Your task to perform on an android device: open the mobile data screen to see how much data has been used Image 0: 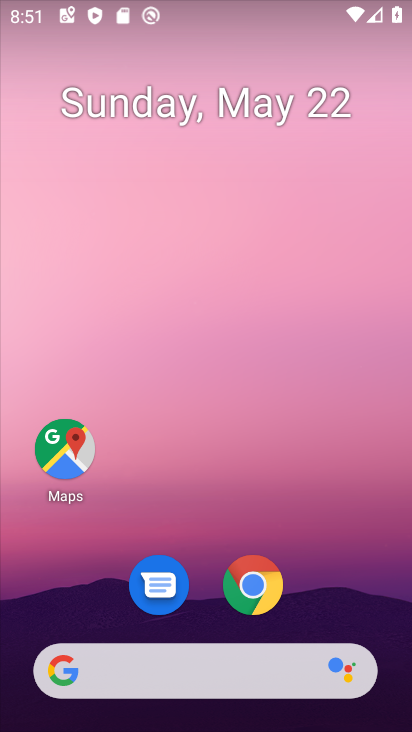
Step 0: drag from (217, 511) to (186, 4)
Your task to perform on an android device: open the mobile data screen to see how much data has been used Image 1: 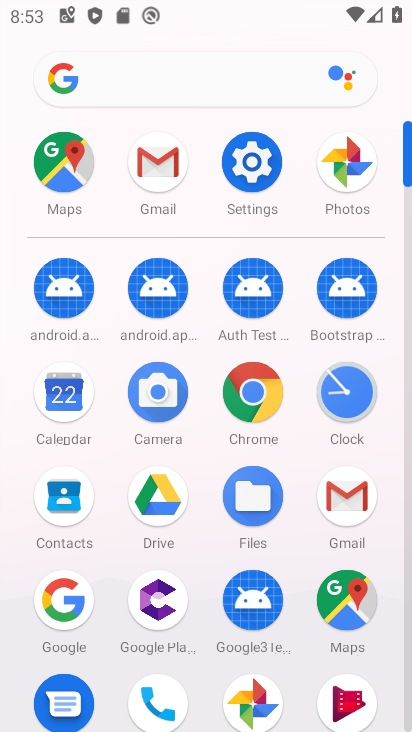
Step 1: click (238, 147)
Your task to perform on an android device: open the mobile data screen to see how much data has been used Image 2: 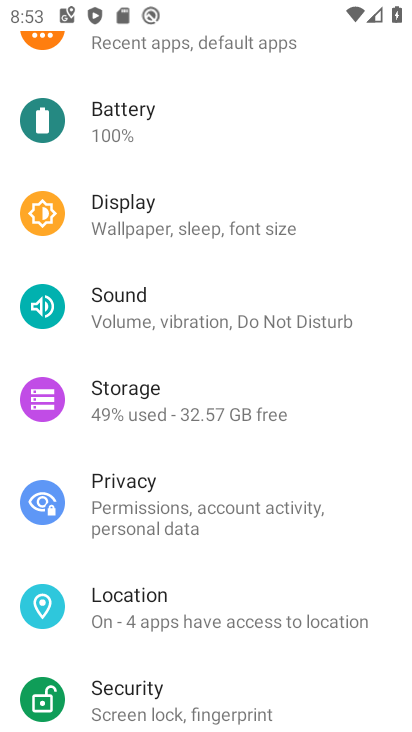
Step 2: drag from (232, 160) to (229, 625)
Your task to perform on an android device: open the mobile data screen to see how much data has been used Image 3: 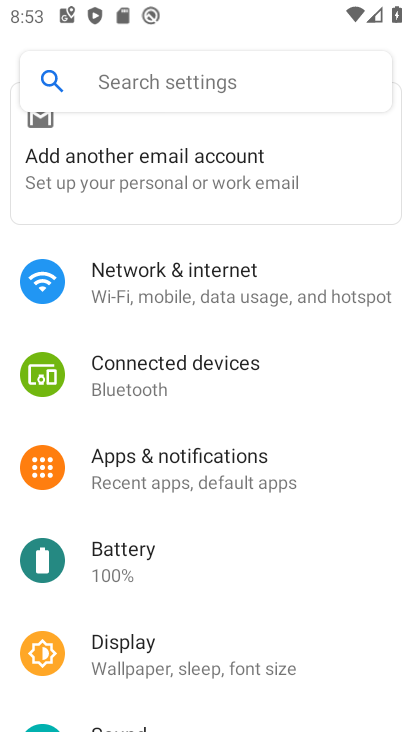
Step 3: click (237, 272)
Your task to perform on an android device: open the mobile data screen to see how much data has been used Image 4: 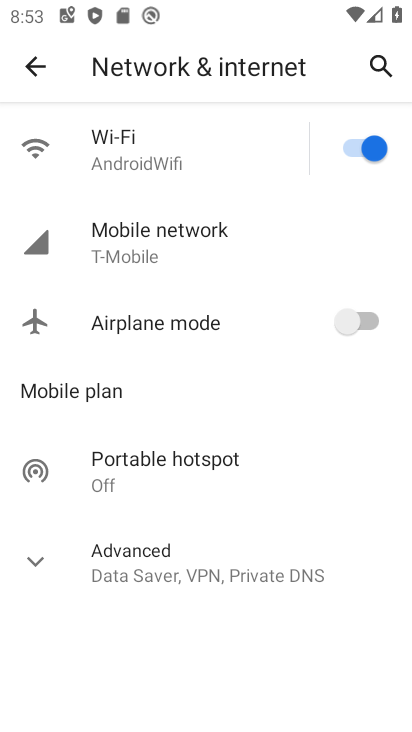
Step 4: click (168, 258)
Your task to perform on an android device: open the mobile data screen to see how much data has been used Image 5: 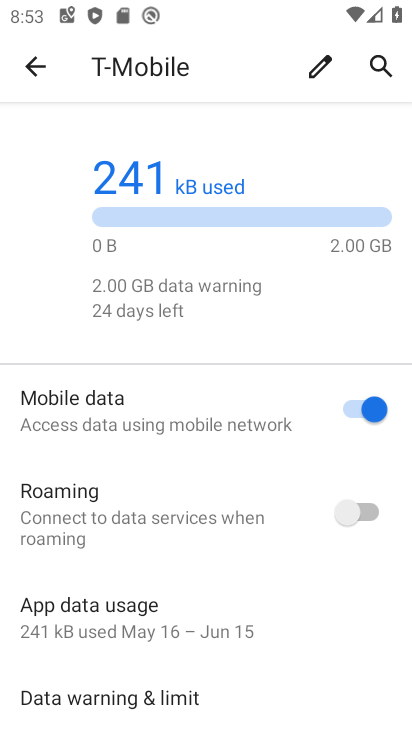
Step 5: task complete